Your task to perform on an android device: Open Youtube and go to "Your channel" Image 0: 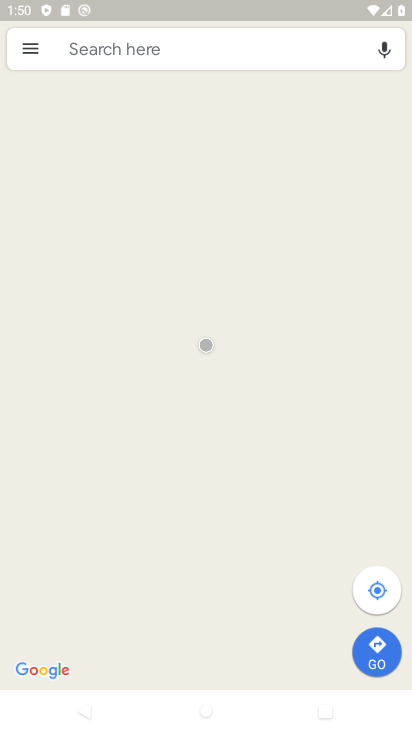
Step 0: press home button
Your task to perform on an android device: Open Youtube and go to "Your channel" Image 1: 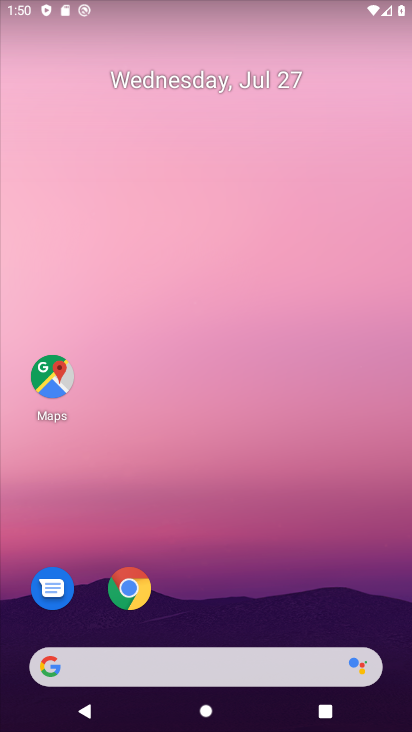
Step 1: press home button
Your task to perform on an android device: Open Youtube and go to "Your channel" Image 2: 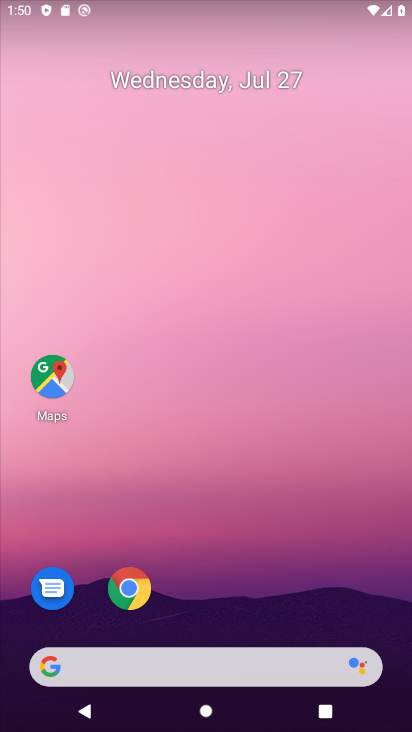
Step 2: drag from (217, 593) to (228, 129)
Your task to perform on an android device: Open Youtube and go to "Your channel" Image 3: 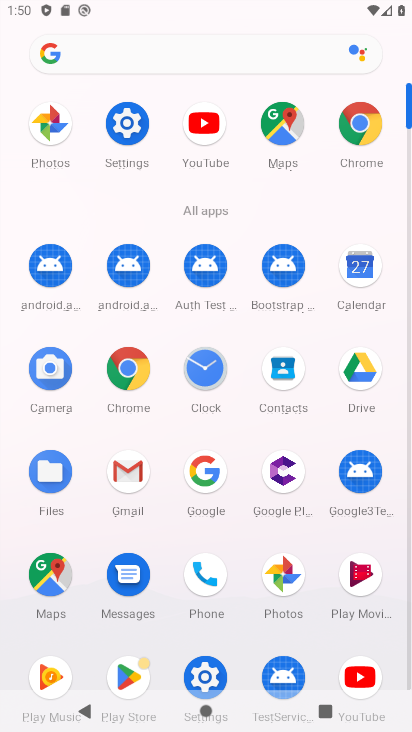
Step 3: click (224, 113)
Your task to perform on an android device: Open Youtube and go to "Your channel" Image 4: 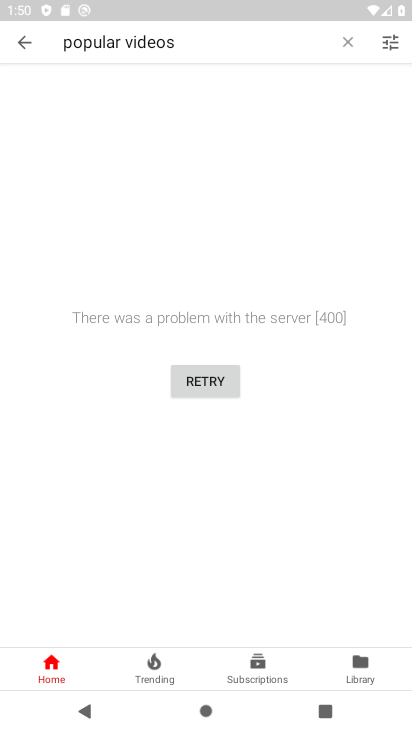
Step 4: click (392, 44)
Your task to perform on an android device: Open Youtube and go to "Your channel" Image 5: 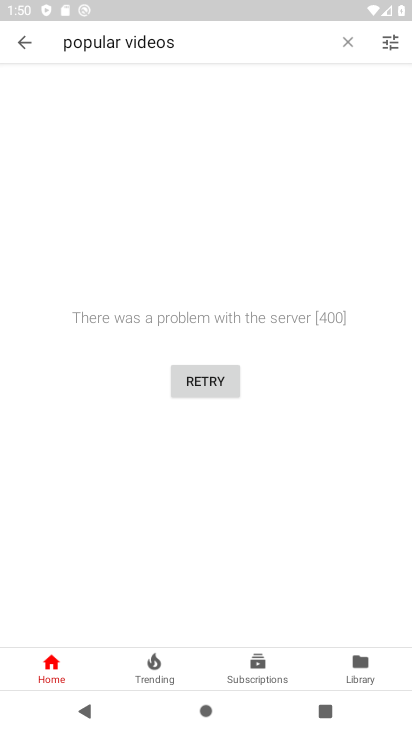
Step 5: click (392, 35)
Your task to perform on an android device: Open Youtube and go to "Your channel" Image 6: 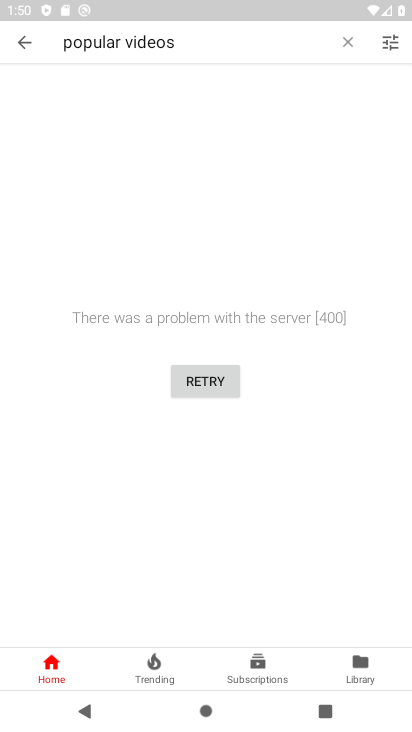
Step 6: click (397, 49)
Your task to perform on an android device: Open Youtube and go to "Your channel" Image 7: 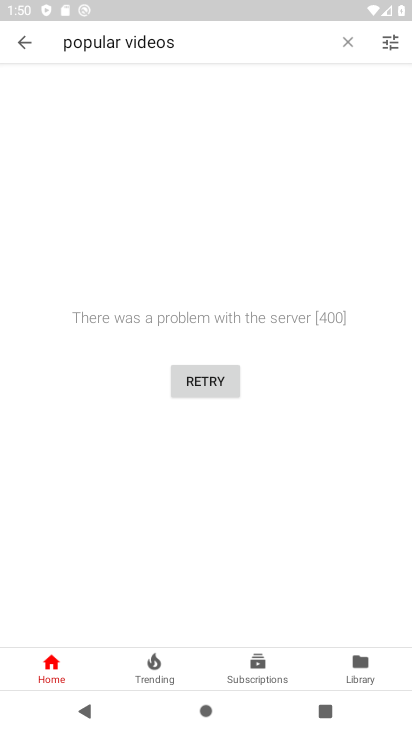
Step 7: click (390, 39)
Your task to perform on an android device: Open Youtube and go to "Your channel" Image 8: 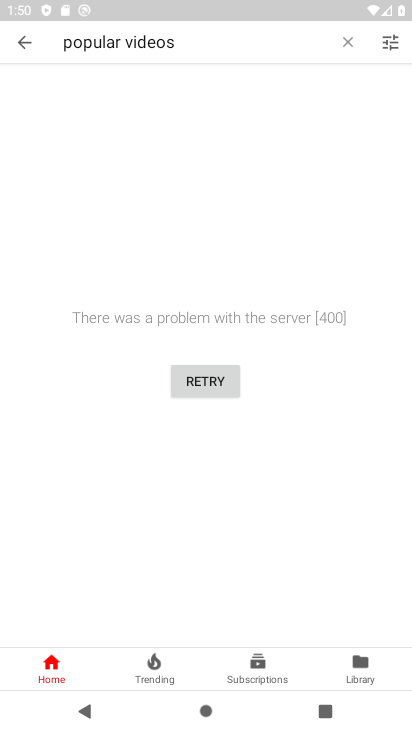
Step 8: click (390, 39)
Your task to perform on an android device: Open Youtube and go to "Your channel" Image 9: 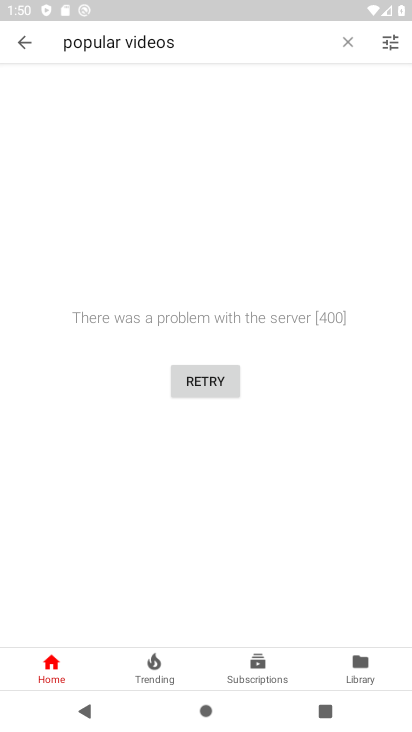
Step 9: task complete